Your task to perform on an android device: Show me recent news Image 0: 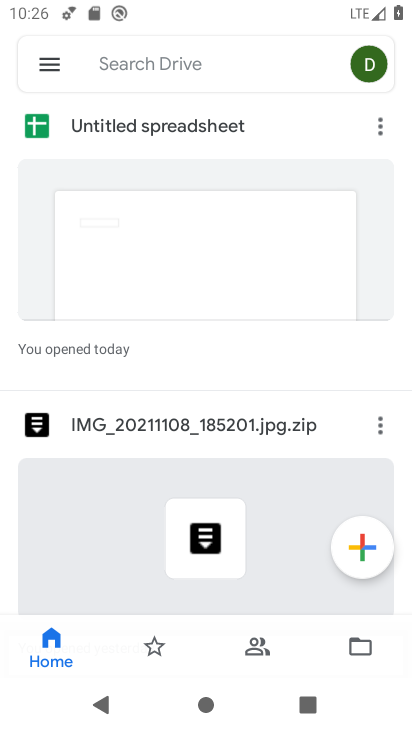
Step 0: press home button
Your task to perform on an android device: Show me recent news Image 1: 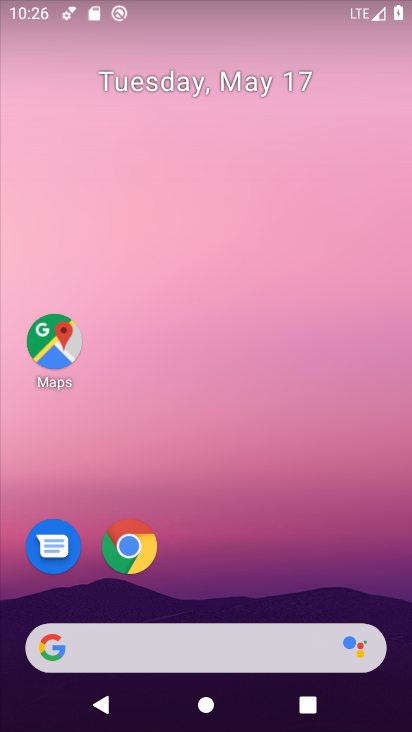
Step 1: drag from (262, 608) to (239, 28)
Your task to perform on an android device: Show me recent news Image 2: 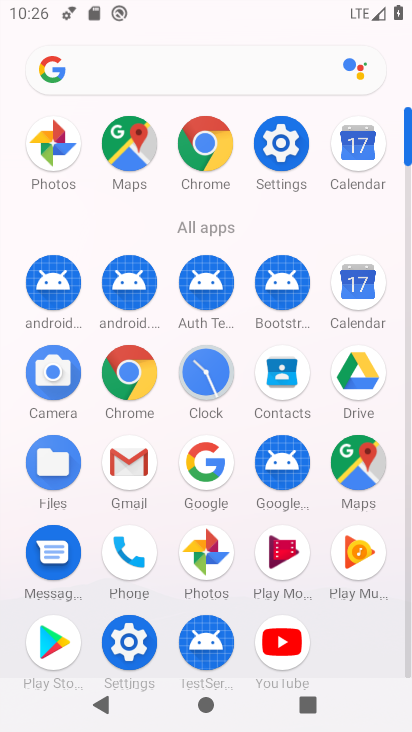
Step 2: click (231, 64)
Your task to perform on an android device: Show me recent news Image 3: 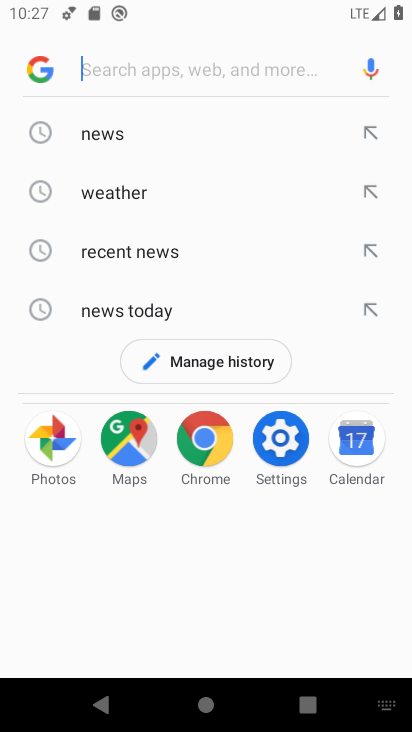
Step 3: type "recent news"
Your task to perform on an android device: Show me recent news Image 4: 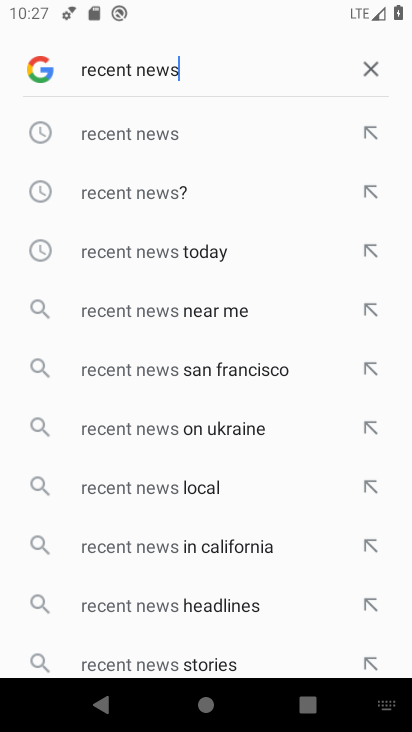
Step 4: click (156, 194)
Your task to perform on an android device: Show me recent news Image 5: 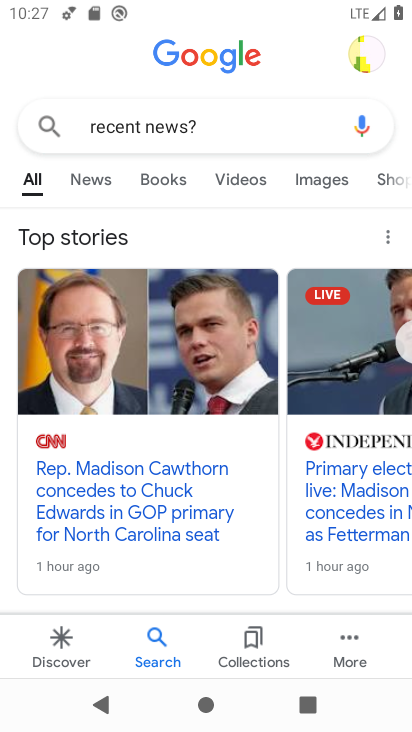
Step 5: task complete